Your task to perform on an android device: Open settings Image 0: 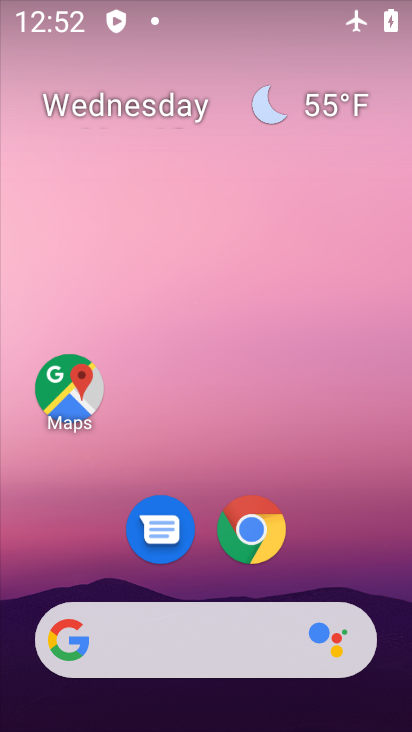
Step 0: drag from (218, 604) to (221, 167)
Your task to perform on an android device: Open settings Image 1: 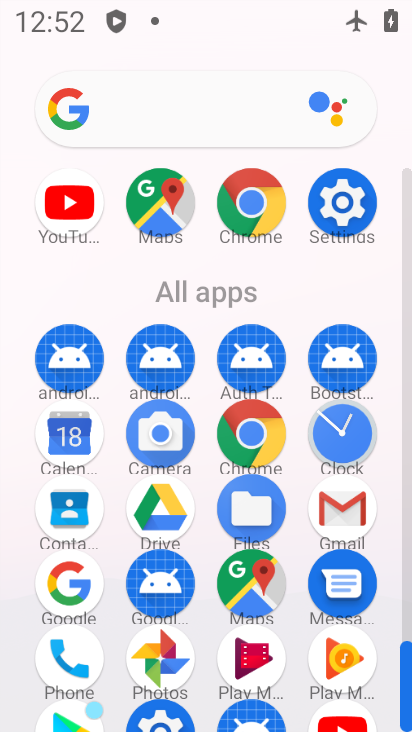
Step 1: click (338, 191)
Your task to perform on an android device: Open settings Image 2: 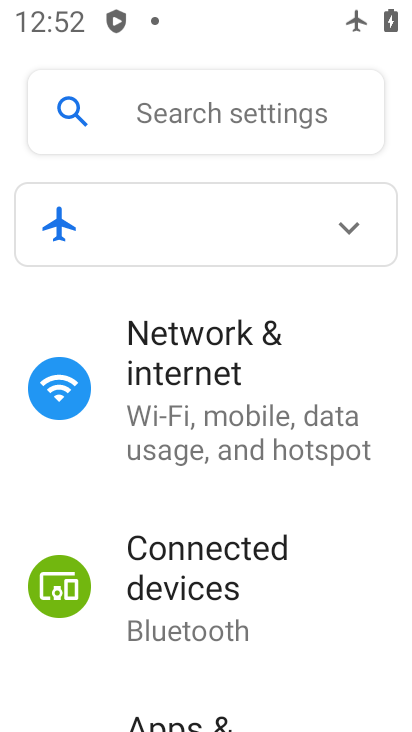
Step 2: task complete